Your task to perform on an android device: Open settings Image 0: 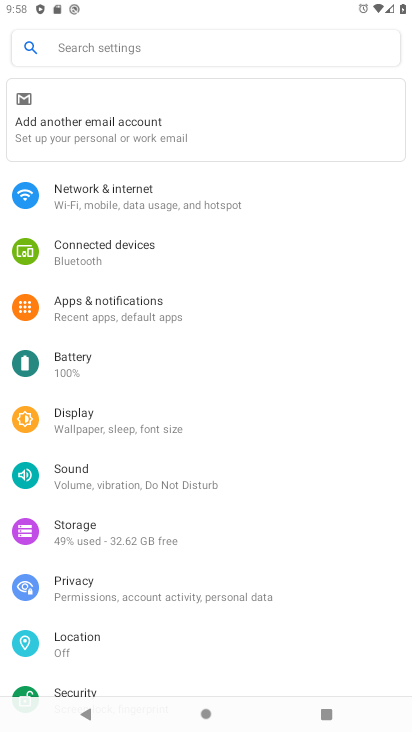
Step 0: task complete